Your task to perform on an android device: Toggle the flashlight Image 0: 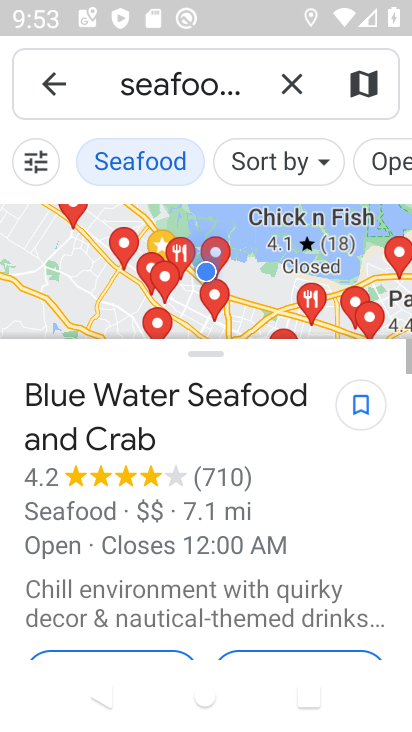
Step 0: press home button
Your task to perform on an android device: Toggle the flashlight Image 1: 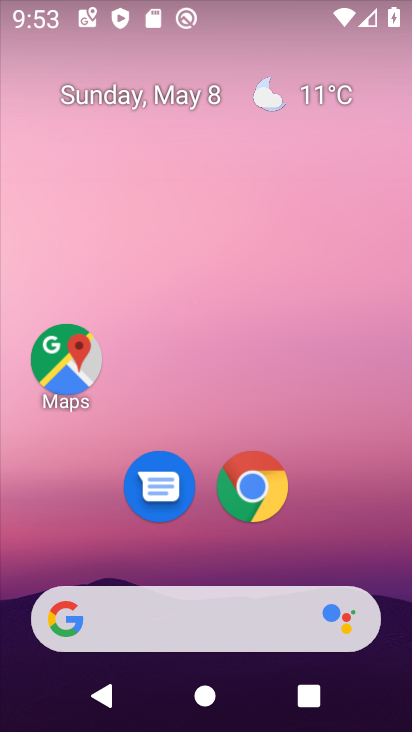
Step 1: drag from (348, 559) to (316, 2)
Your task to perform on an android device: Toggle the flashlight Image 2: 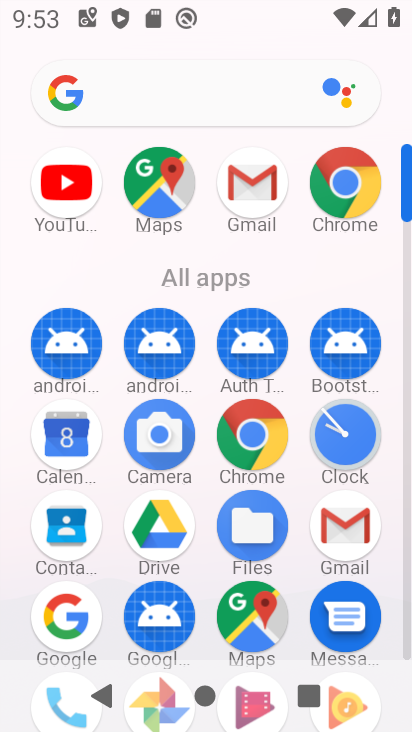
Step 2: drag from (203, 314) to (249, 173)
Your task to perform on an android device: Toggle the flashlight Image 3: 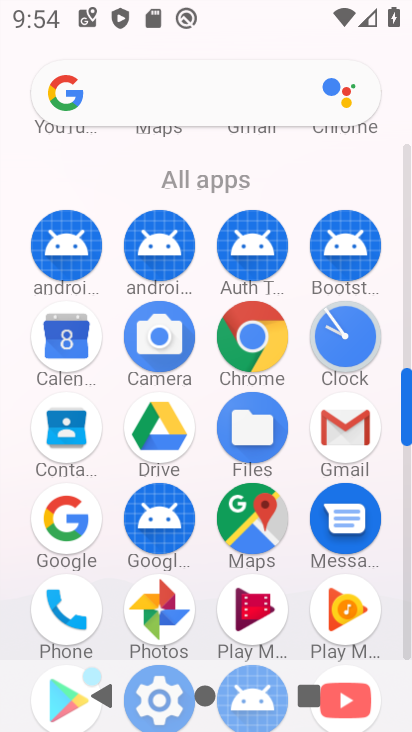
Step 3: drag from (109, 639) to (191, 310)
Your task to perform on an android device: Toggle the flashlight Image 4: 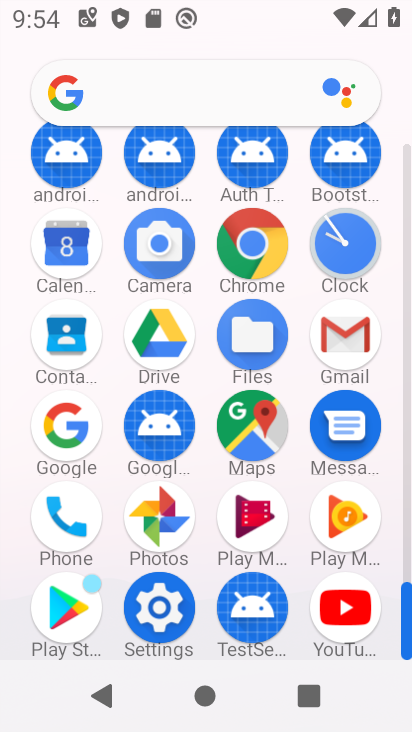
Step 4: click (163, 605)
Your task to perform on an android device: Toggle the flashlight Image 5: 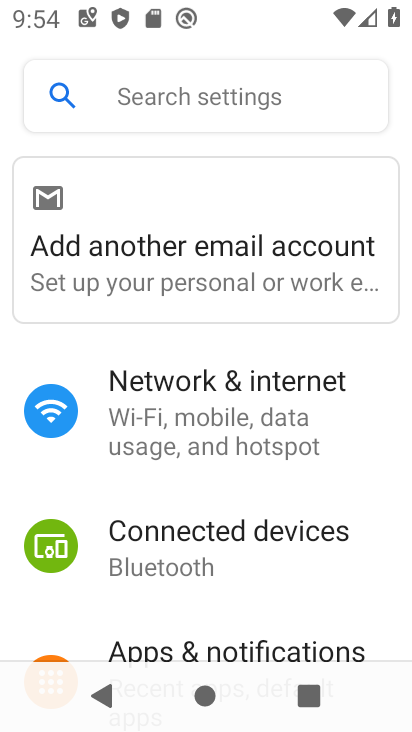
Step 5: task complete